Your task to perform on an android device: Open sound settings Image 0: 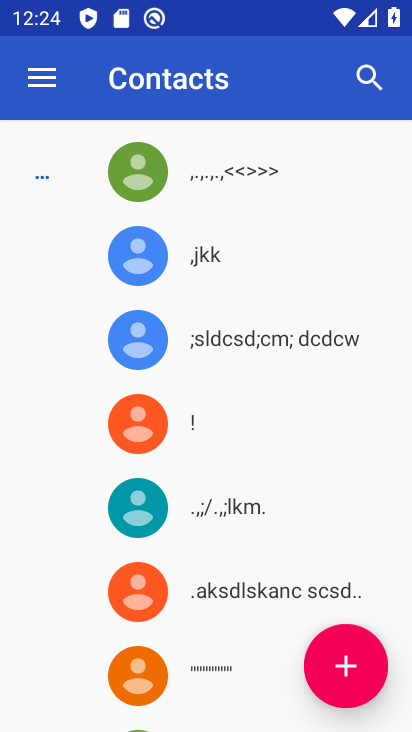
Step 0: press home button
Your task to perform on an android device: Open sound settings Image 1: 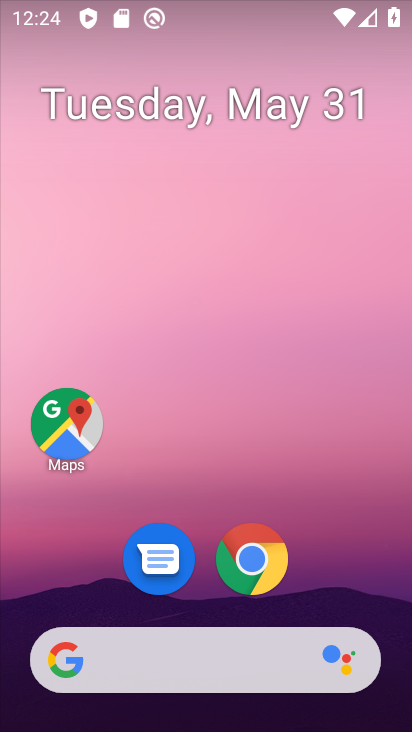
Step 1: drag from (127, 616) to (199, 14)
Your task to perform on an android device: Open sound settings Image 2: 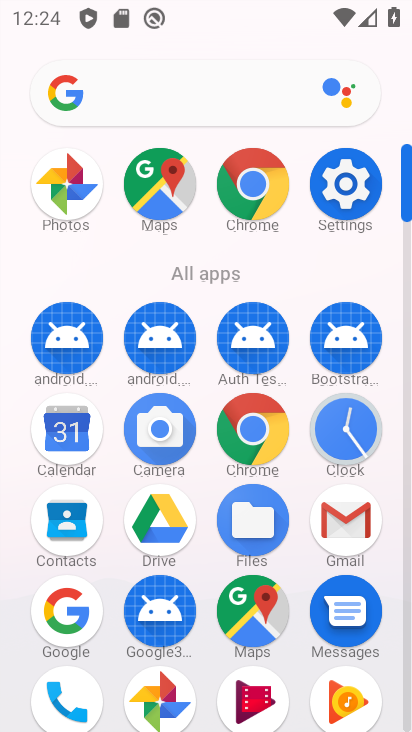
Step 2: click (364, 199)
Your task to perform on an android device: Open sound settings Image 3: 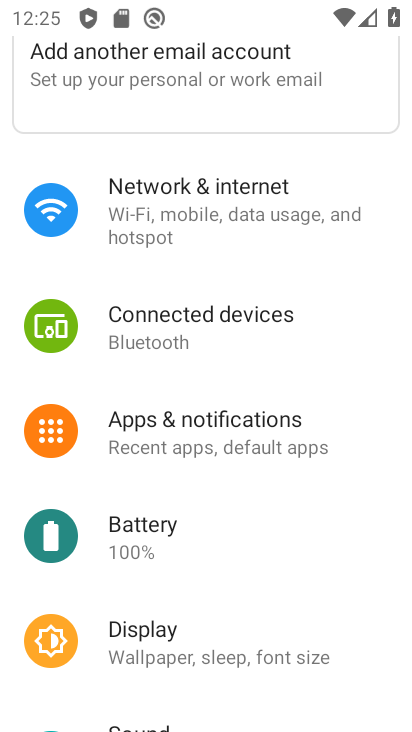
Step 3: drag from (268, 608) to (235, 252)
Your task to perform on an android device: Open sound settings Image 4: 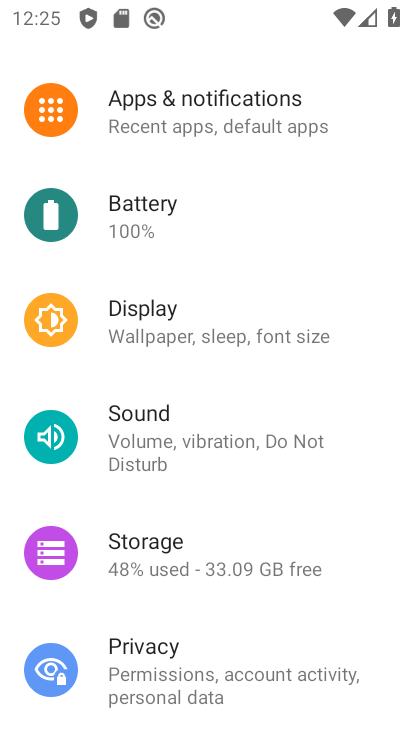
Step 4: click (149, 434)
Your task to perform on an android device: Open sound settings Image 5: 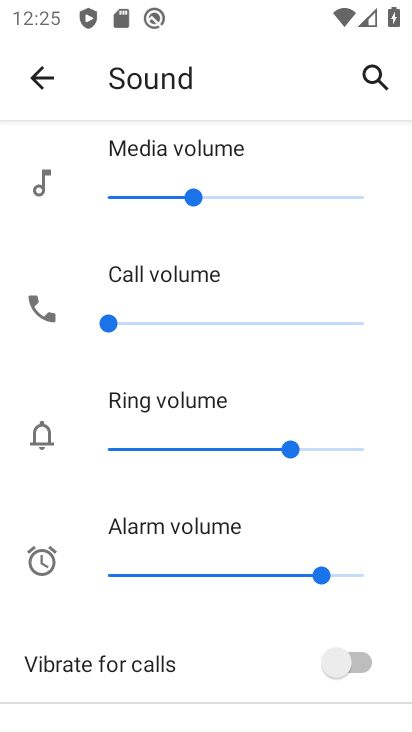
Step 5: task complete